Your task to perform on an android device: Open Yahoo.com Image 0: 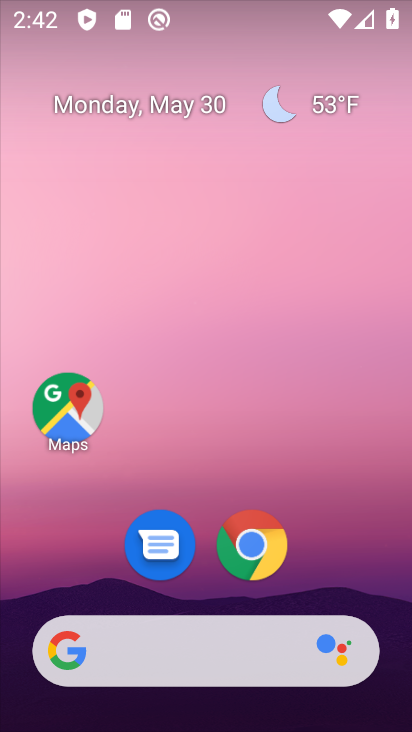
Step 0: click (230, 538)
Your task to perform on an android device: Open Yahoo.com Image 1: 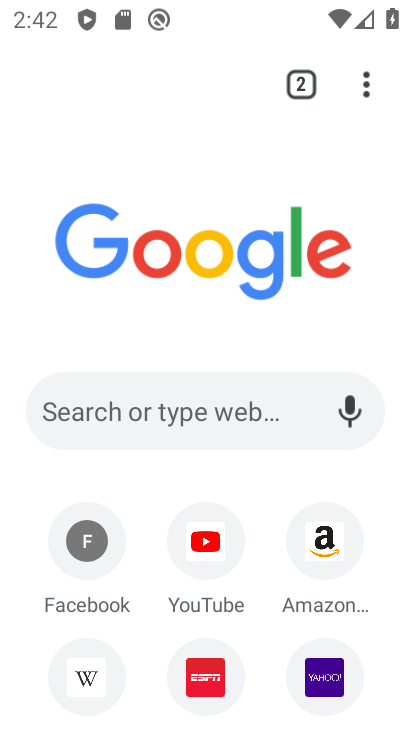
Step 1: click (298, 679)
Your task to perform on an android device: Open Yahoo.com Image 2: 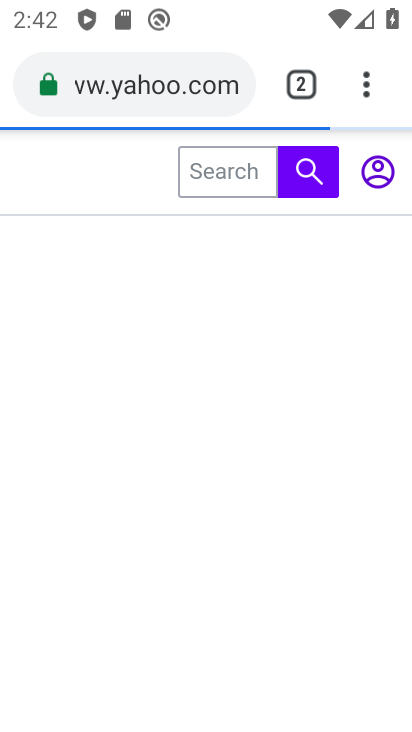
Step 2: task complete